Your task to perform on an android device: Go to accessibility settings Image 0: 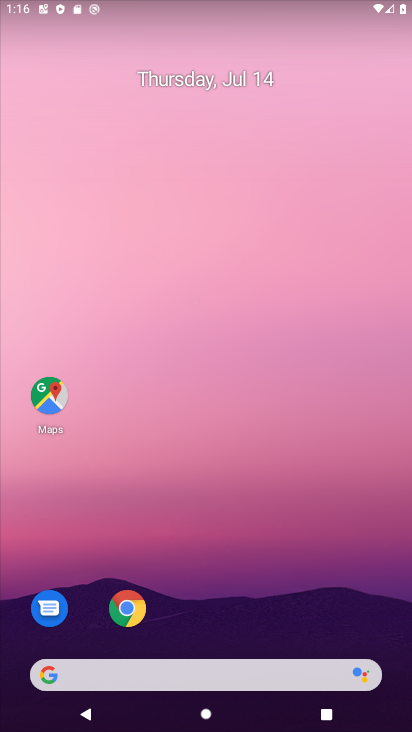
Step 0: drag from (396, 655) to (345, 140)
Your task to perform on an android device: Go to accessibility settings Image 1: 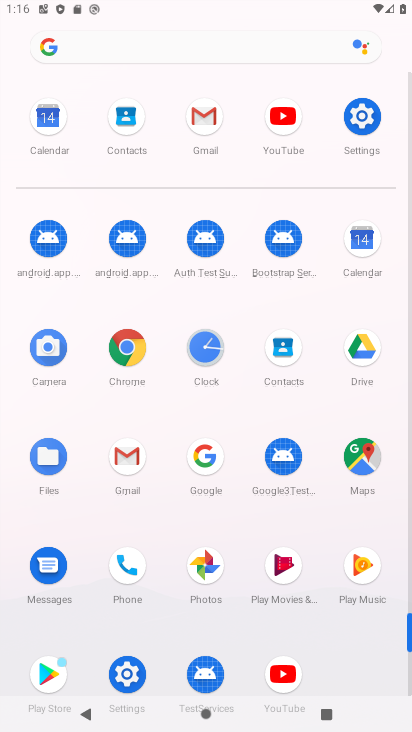
Step 1: click (126, 674)
Your task to perform on an android device: Go to accessibility settings Image 2: 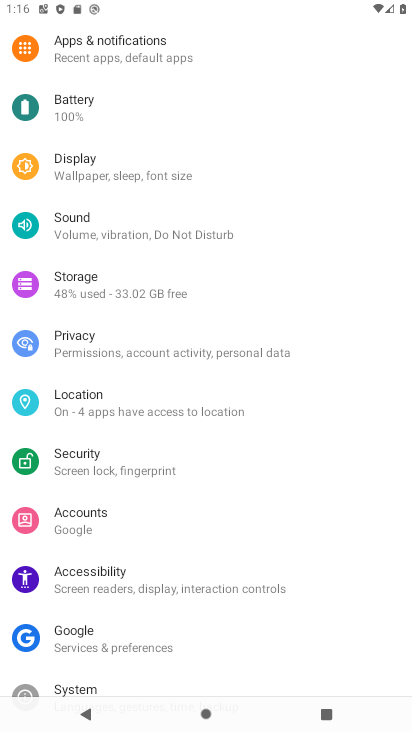
Step 2: click (83, 584)
Your task to perform on an android device: Go to accessibility settings Image 3: 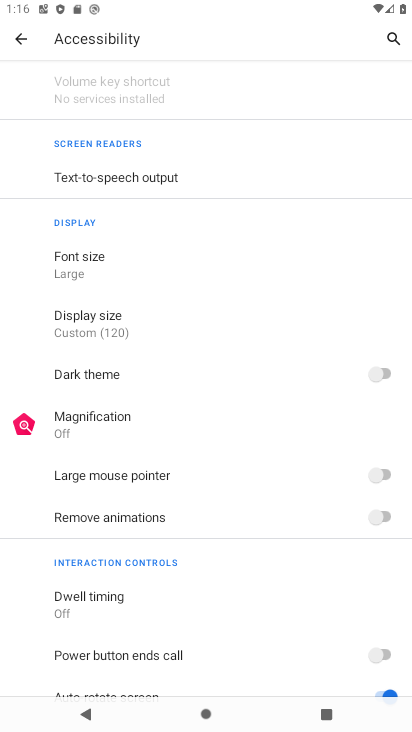
Step 3: task complete